Your task to perform on an android device: add a contact in the contacts app Image 0: 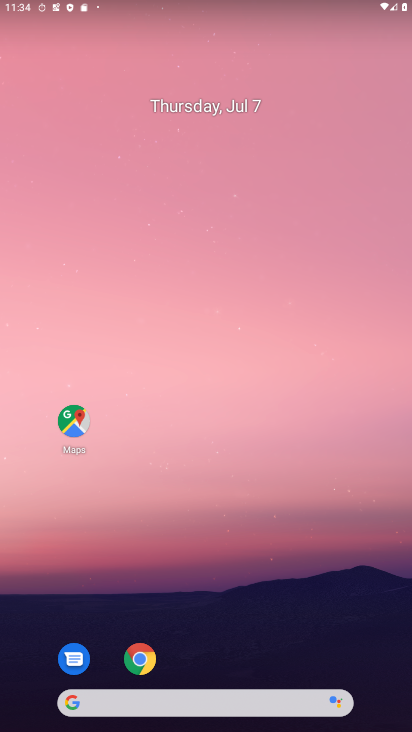
Step 0: press home button
Your task to perform on an android device: add a contact in the contacts app Image 1: 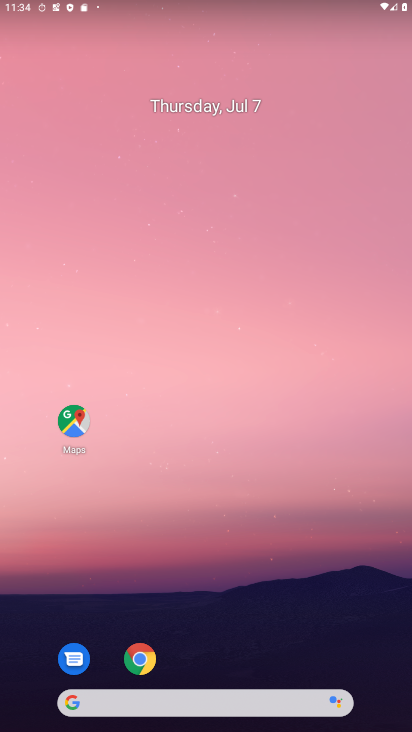
Step 1: drag from (218, 667) to (252, 0)
Your task to perform on an android device: add a contact in the contacts app Image 2: 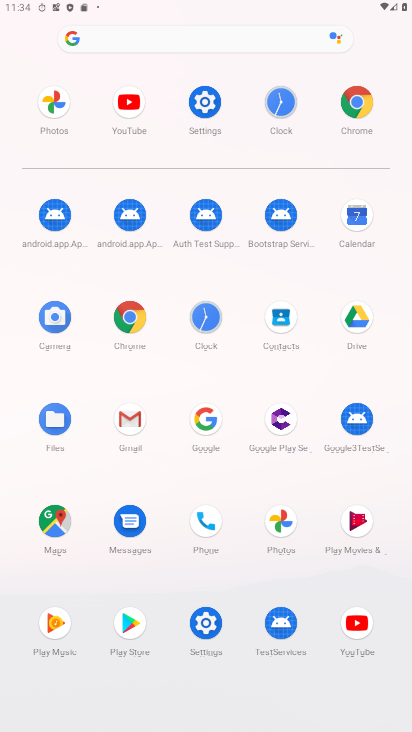
Step 2: click (278, 311)
Your task to perform on an android device: add a contact in the contacts app Image 3: 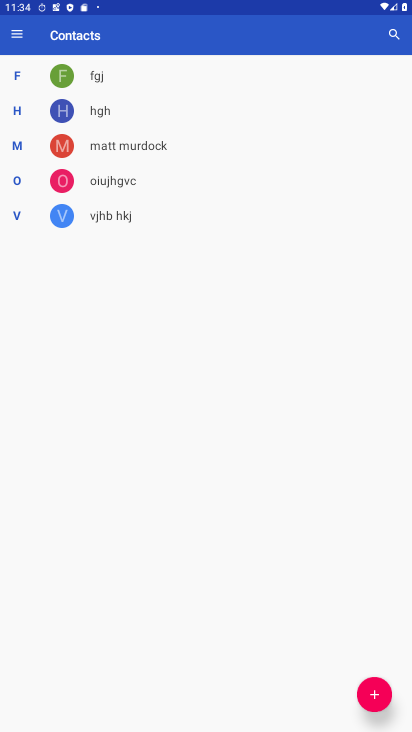
Step 3: click (366, 699)
Your task to perform on an android device: add a contact in the contacts app Image 4: 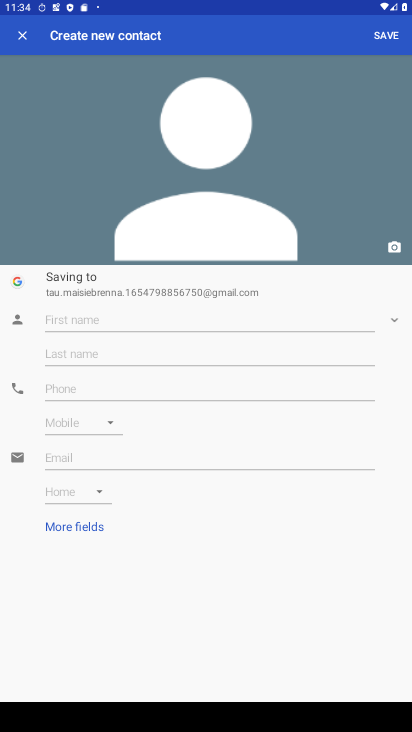
Step 4: click (72, 317)
Your task to perform on an android device: add a contact in the contacts app Image 5: 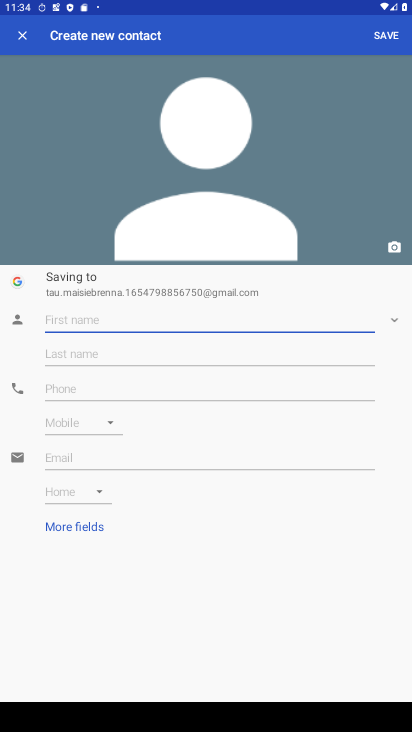
Step 5: type "APRNKT"
Your task to perform on an android device: add a contact in the contacts app Image 6: 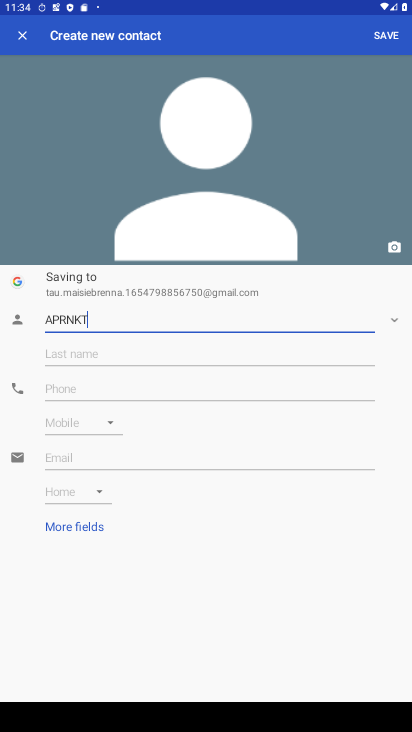
Step 6: click (389, 34)
Your task to perform on an android device: add a contact in the contacts app Image 7: 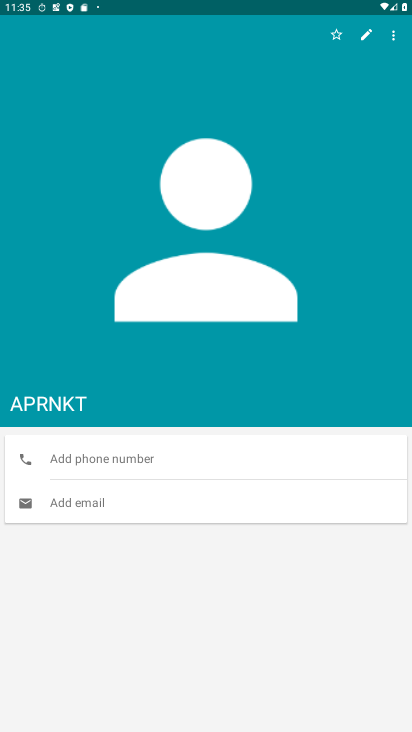
Step 7: task complete